Your task to perform on an android device: open sync settings in chrome Image 0: 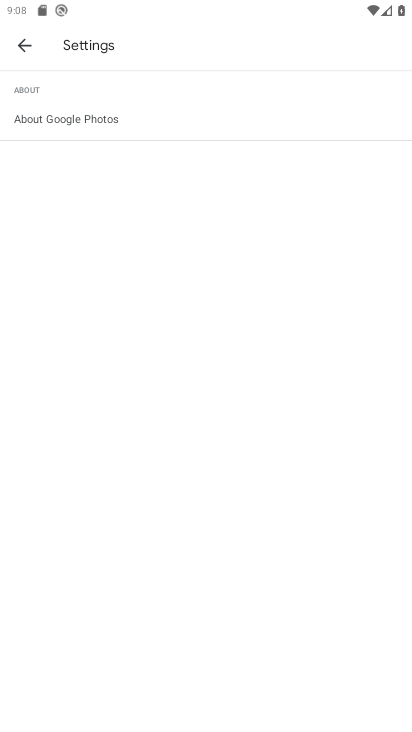
Step 0: press home button
Your task to perform on an android device: open sync settings in chrome Image 1: 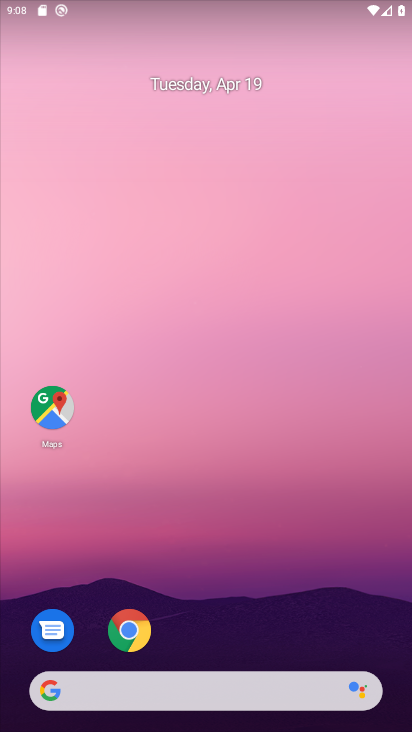
Step 1: drag from (258, 703) to (273, 81)
Your task to perform on an android device: open sync settings in chrome Image 2: 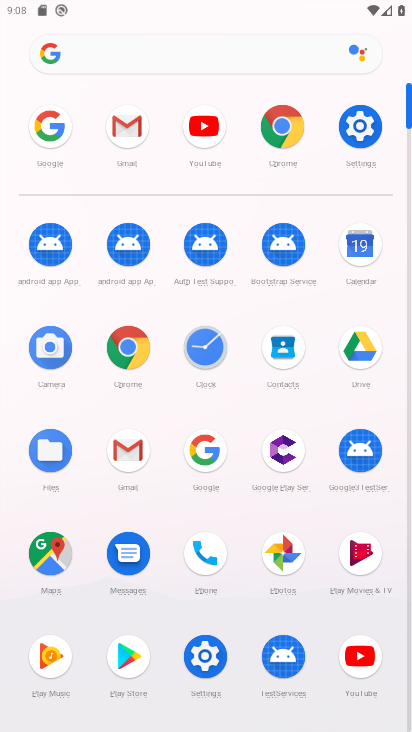
Step 2: click (289, 127)
Your task to perform on an android device: open sync settings in chrome Image 3: 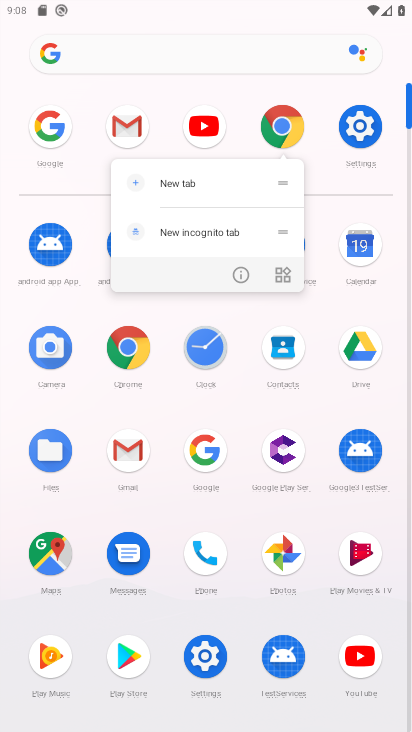
Step 3: click (289, 127)
Your task to perform on an android device: open sync settings in chrome Image 4: 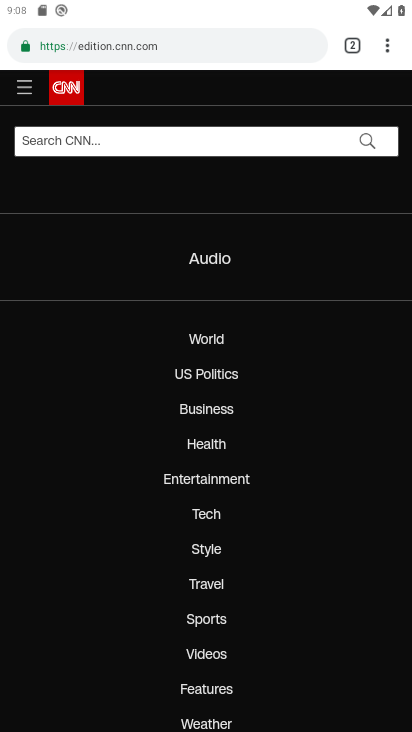
Step 4: click (382, 49)
Your task to perform on an android device: open sync settings in chrome Image 5: 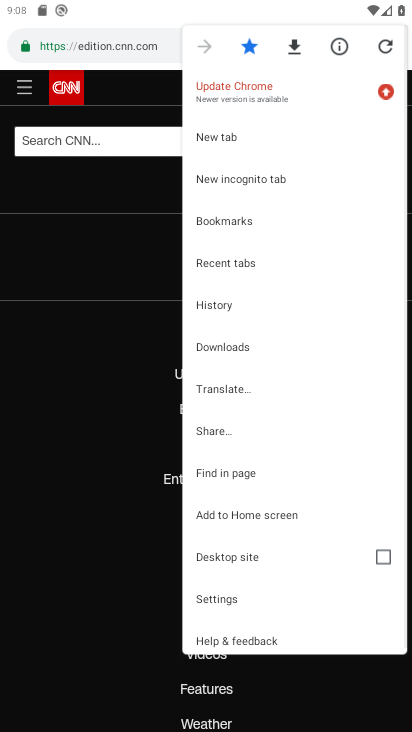
Step 5: click (266, 591)
Your task to perform on an android device: open sync settings in chrome Image 6: 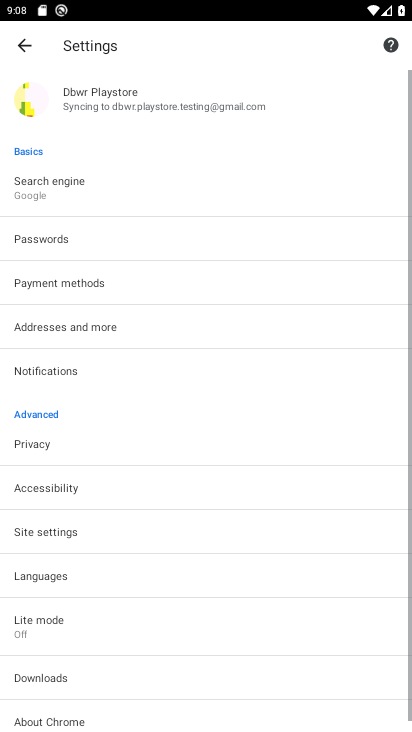
Step 6: click (248, 106)
Your task to perform on an android device: open sync settings in chrome Image 7: 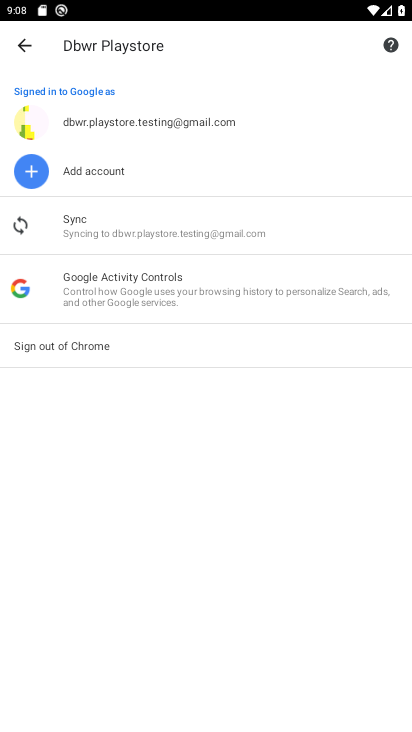
Step 7: click (145, 226)
Your task to perform on an android device: open sync settings in chrome Image 8: 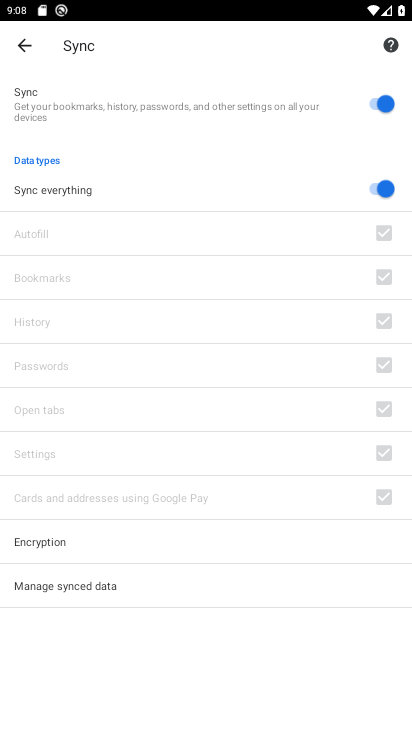
Step 8: task complete